Your task to perform on an android device: open app "Speedtest by Ookla" (install if not already installed), go to login, and select forgot password Image 0: 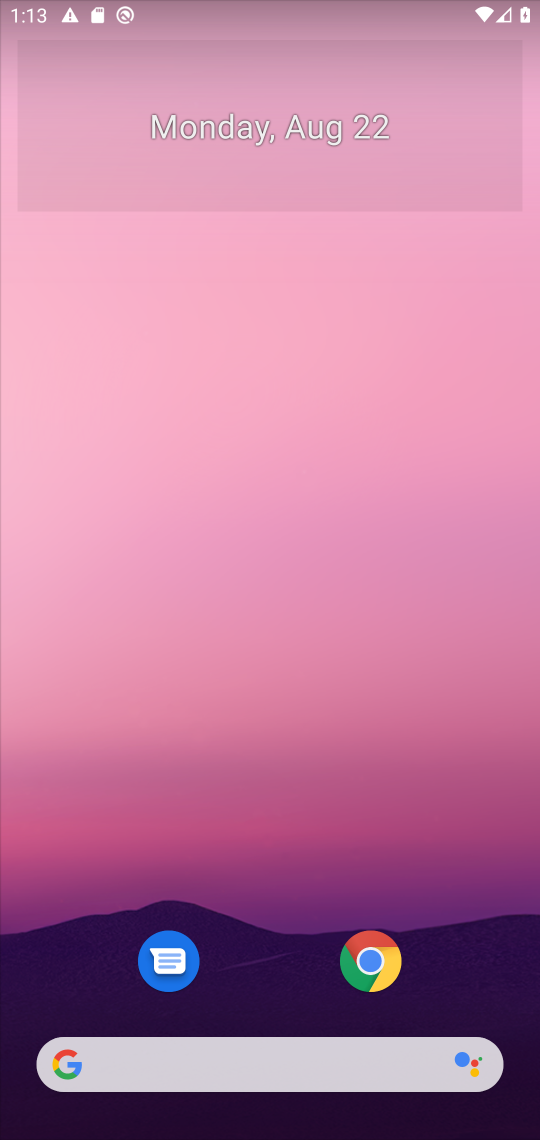
Step 0: drag from (442, 921) to (455, 66)
Your task to perform on an android device: open app "Speedtest by Ookla" (install if not already installed), go to login, and select forgot password Image 1: 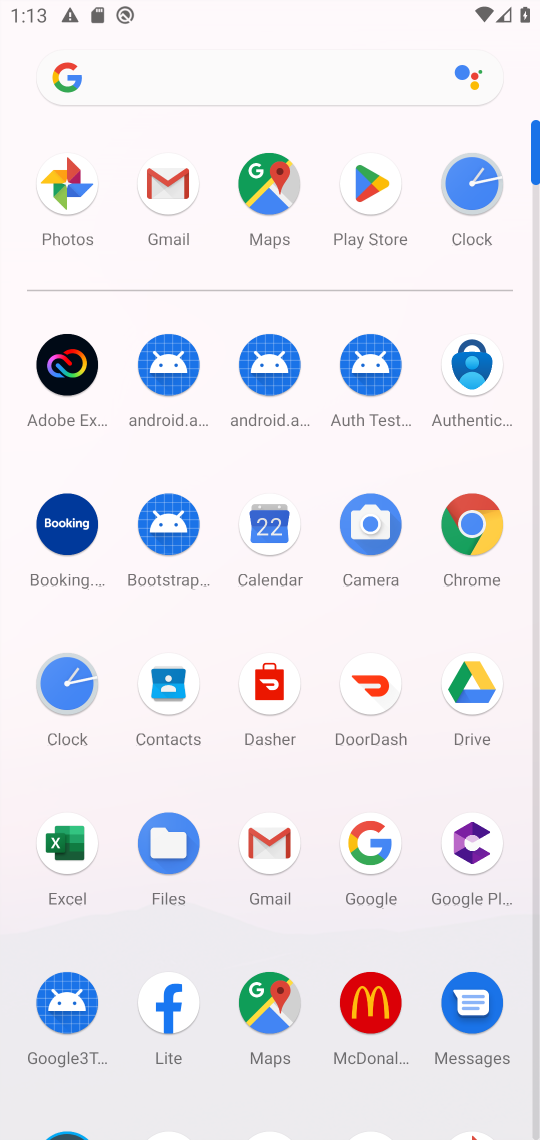
Step 1: click (368, 179)
Your task to perform on an android device: open app "Speedtest by Ookla" (install if not already installed), go to login, and select forgot password Image 2: 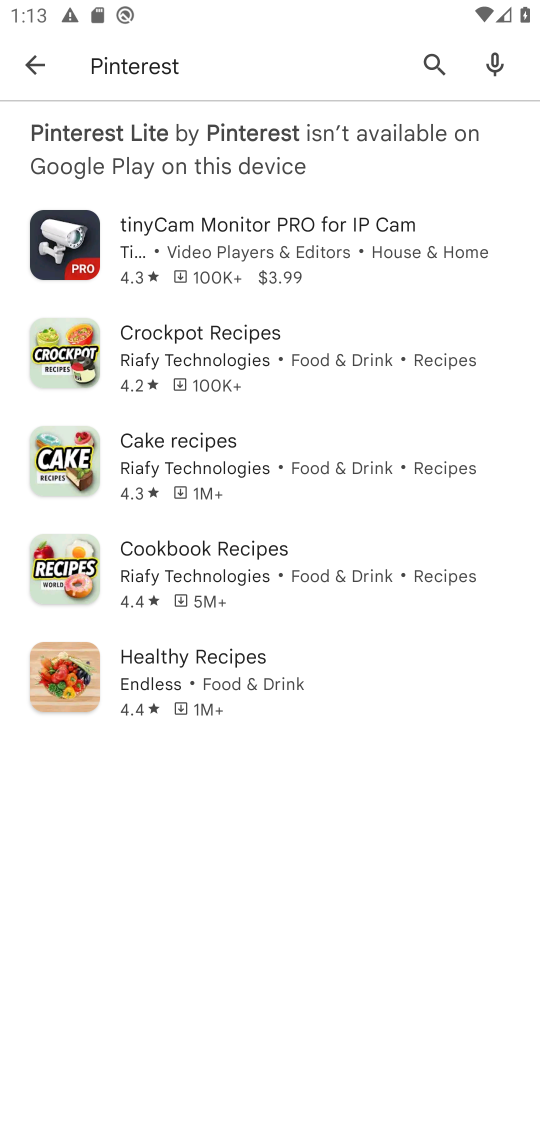
Step 2: press back button
Your task to perform on an android device: open app "Speedtest by Ookla" (install if not already installed), go to login, and select forgot password Image 3: 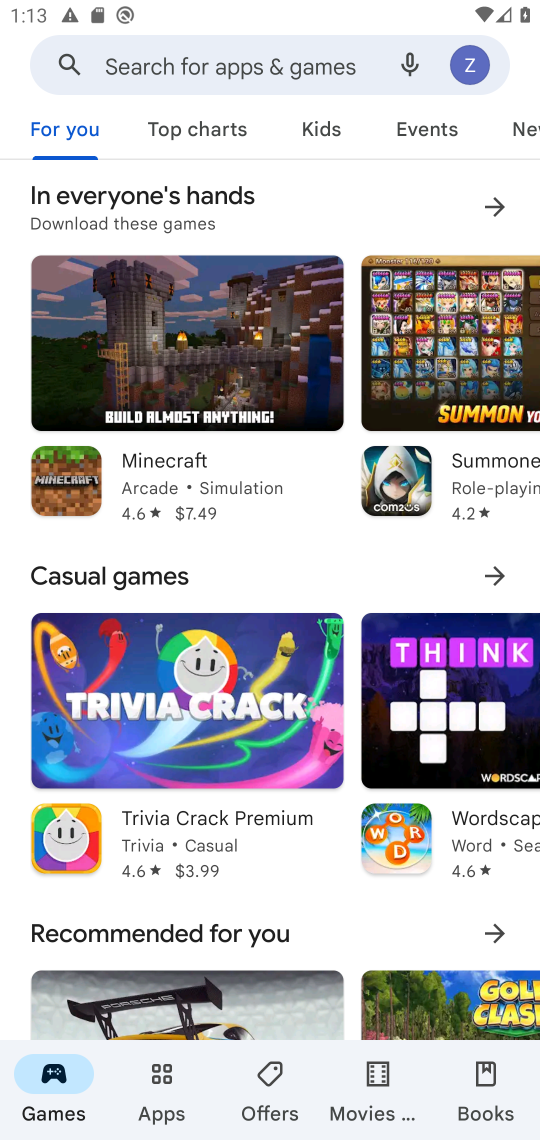
Step 3: click (267, 68)
Your task to perform on an android device: open app "Speedtest by Ookla" (install if not already installed), go to login, and select forgot password Image 4: 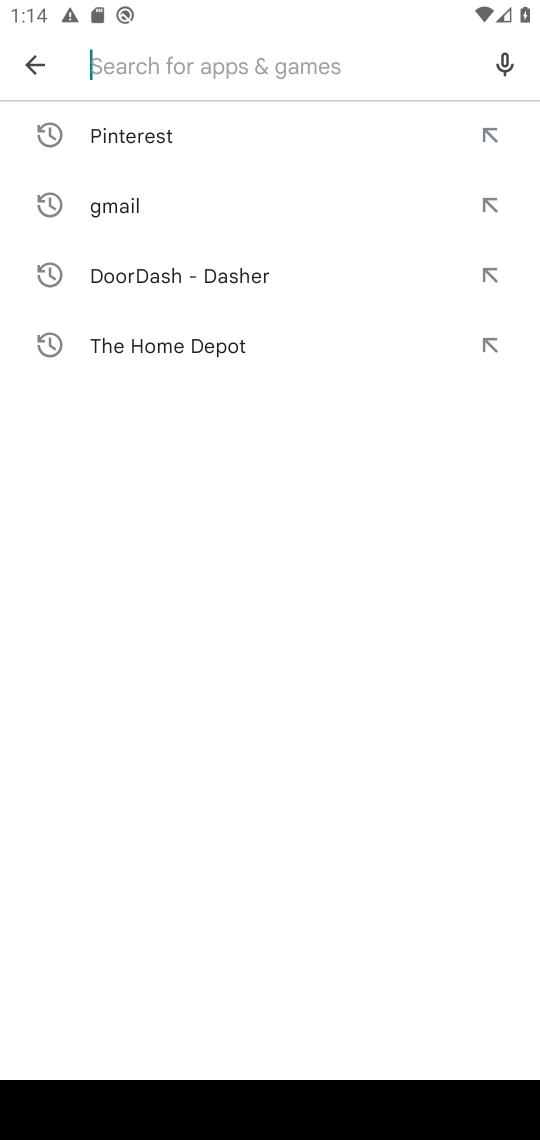
Step 4: press enter
Your task to perform on an android device: open app "Speedtest by Ookla" (install if not already installed), go to login, and select forgot password Image 5: 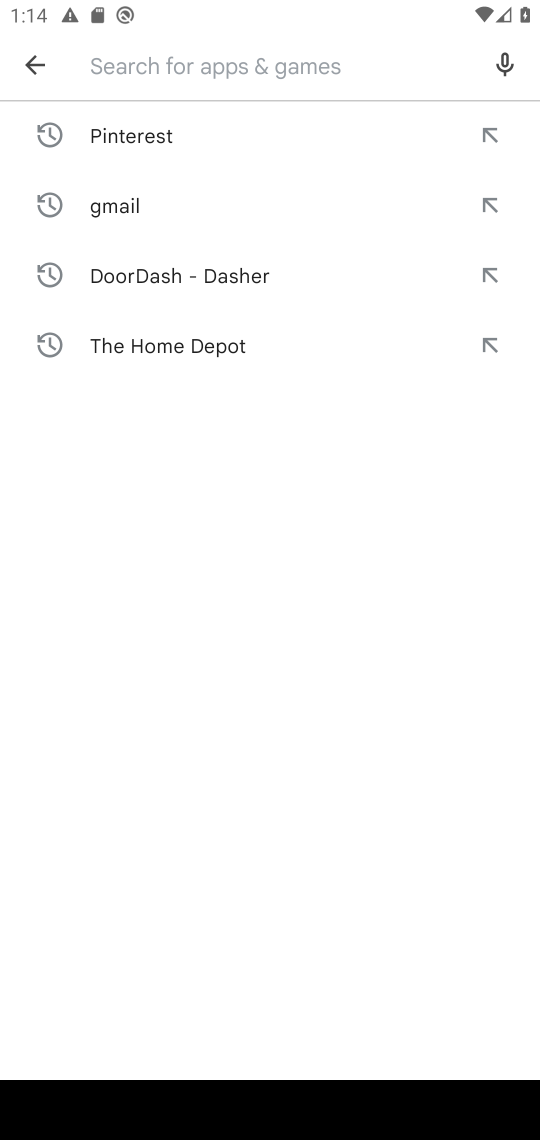
Step 5: type "Speedtest by Ookla"
Your task to perform on an android device: open app "Speedtest by Ookla" (install if not already installed), go to login, and select forgot password Image 6: 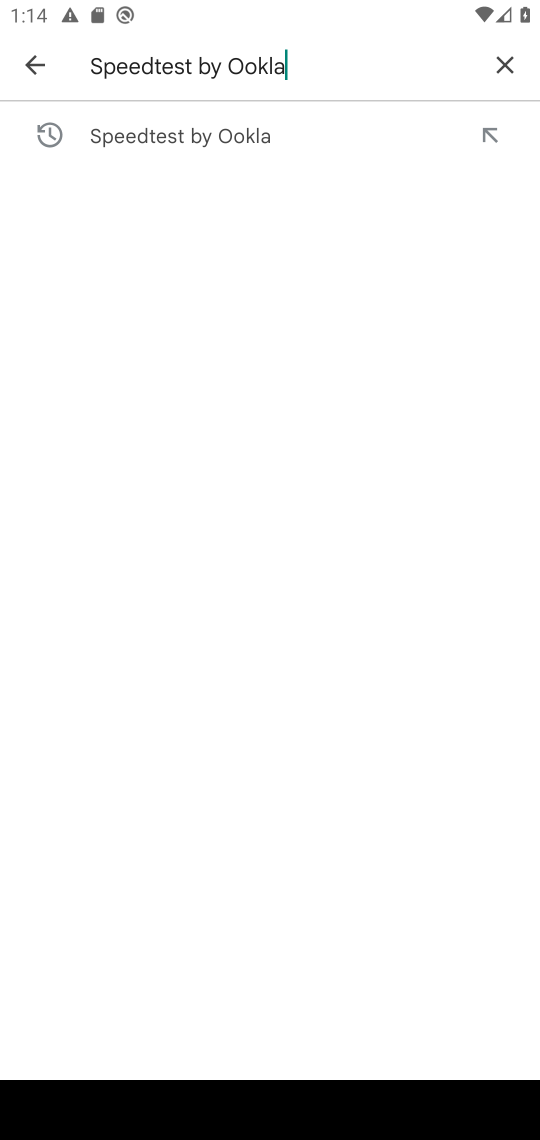
Step 6: click (223, 145)
Your task to perform on an android device: open app "Speedtest by Ookla" (install if not already installed), go to login, and select forgot password Image 7: 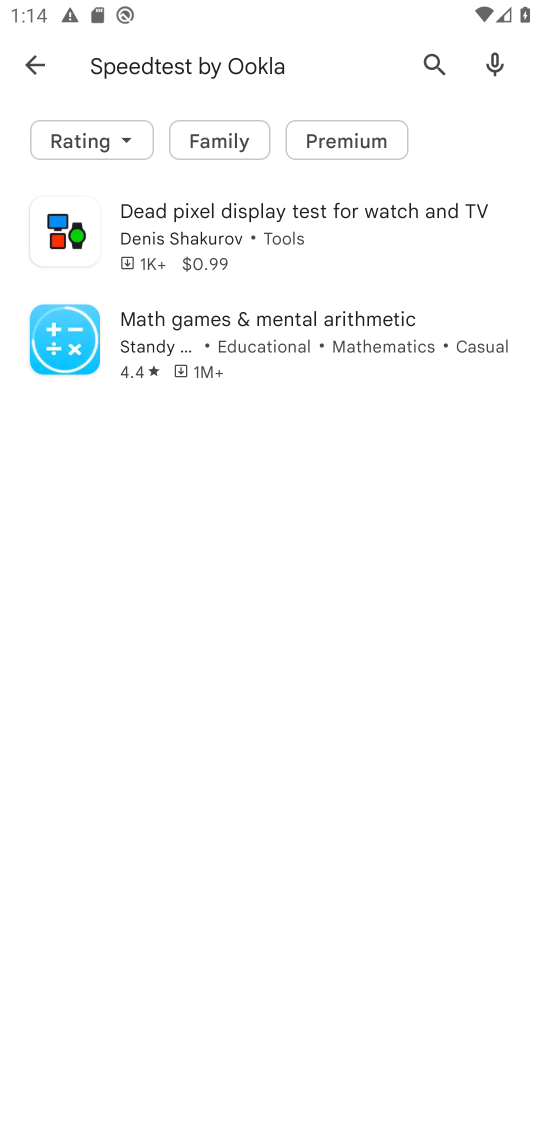
Step 7: task complete